Your task to perform on an android device: Go to internet settings Image 0: 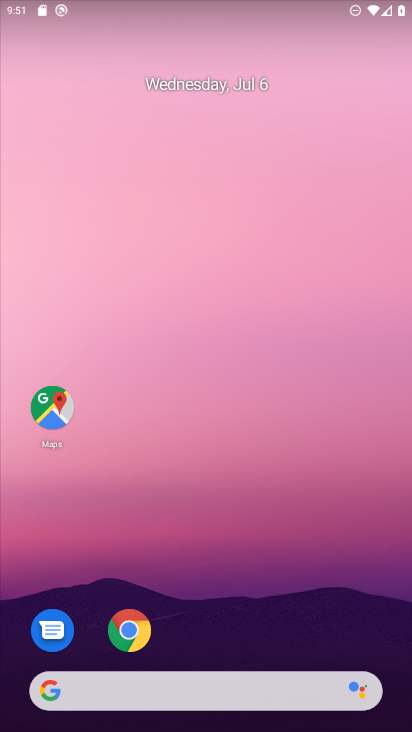
Step 0: press home button
Your task to perform on an android device: Go to internet settings Image 1: 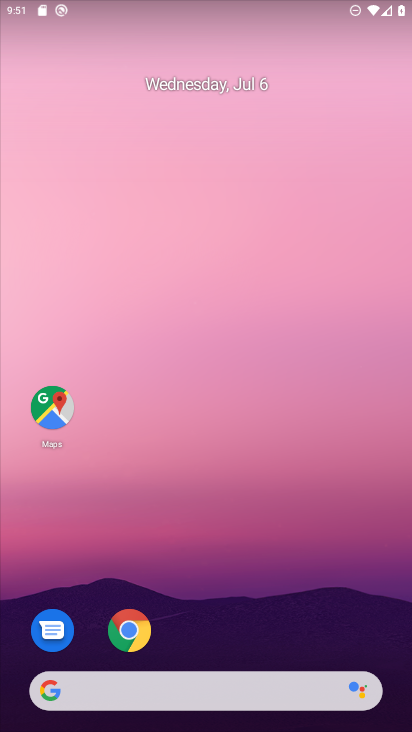
Step 1: drag from (261, 687) to (311, 90)
Your task to perform on an android device: Go to internet settings Image 2: 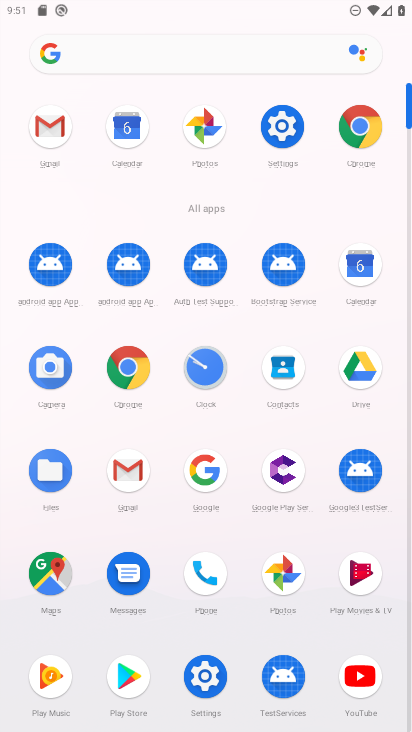
Step 2: click (278, 121)
Your task to perform on an android device: Go to internet settings Image 3: 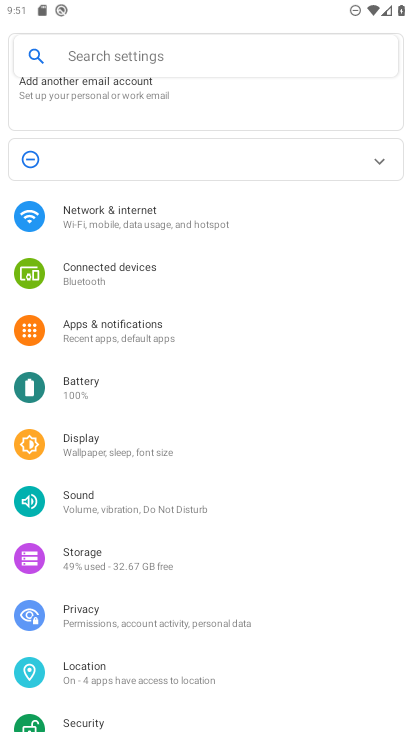
Step 3: click (87, 215)
Your task to perform on an android device: Go to internet settings Image 4: 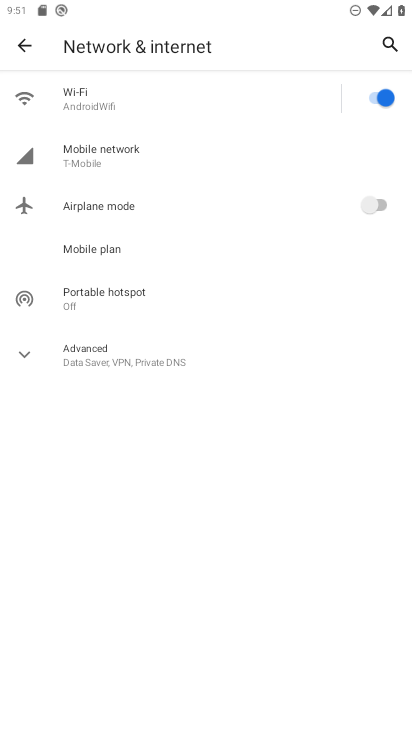
Step 4: task complete